Your task to perform on an android device: toggle sleep mode Image 0: 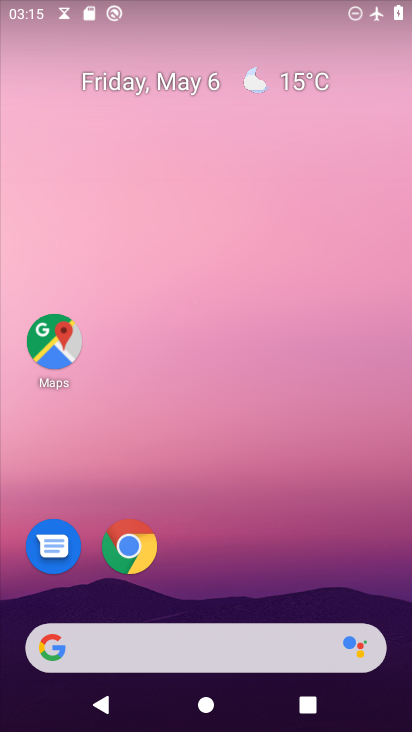
Step 0: drag from (240, 281) to (244, 53)
Your task to perform on an android device: toggle sleep mode Image 1: 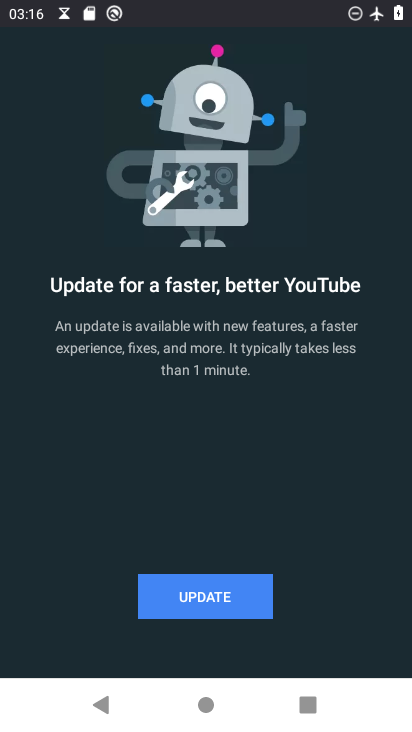
Step 1: press home button
Your task to perform on an android device: toggle sleep mode Image 2: 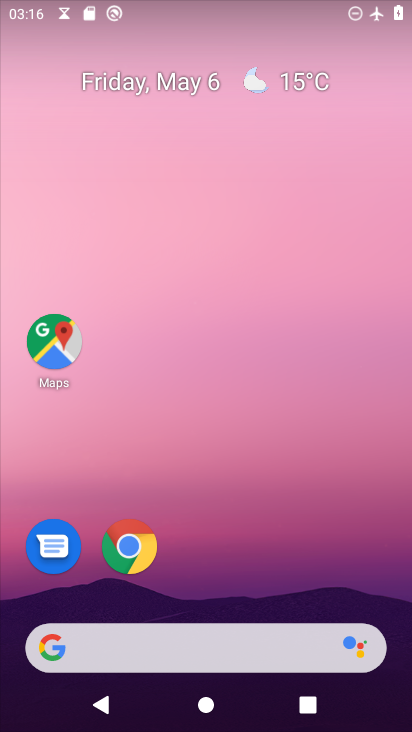
Step 2: drag from (273, 587) to (236, 40)
Your task to perform on an android device: toggle sleep mode Image 3: 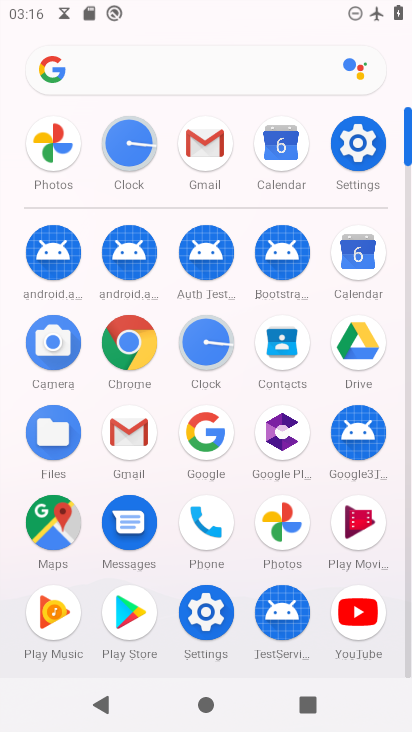
Step 3: click (354, 147)
Your task to perform on an android device: toggle sleep mode Image 4: 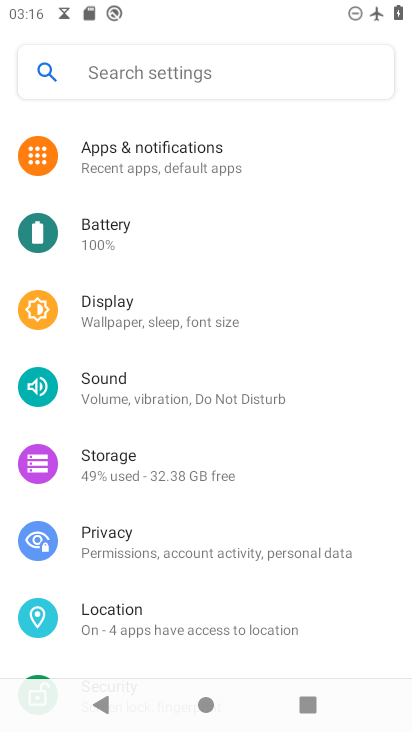
Step 4: click (137, 315)
Your task to perform on an android device: toggle sleep mode Image 5: 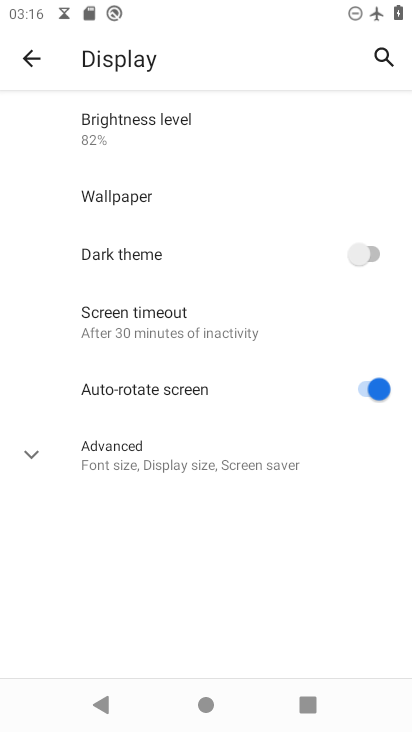
Step 5: click (235, 455)
Your task to perform on an android device: toggle sleep mode Image 6: 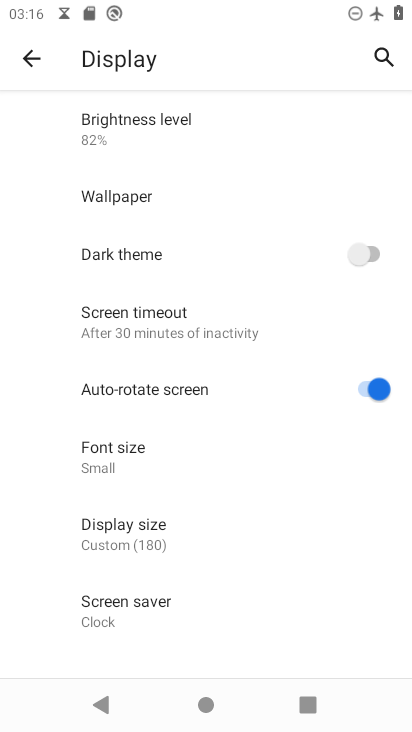
Step 6: task complete